Your task to perform on an android device: turn on sleep mode Image 0: 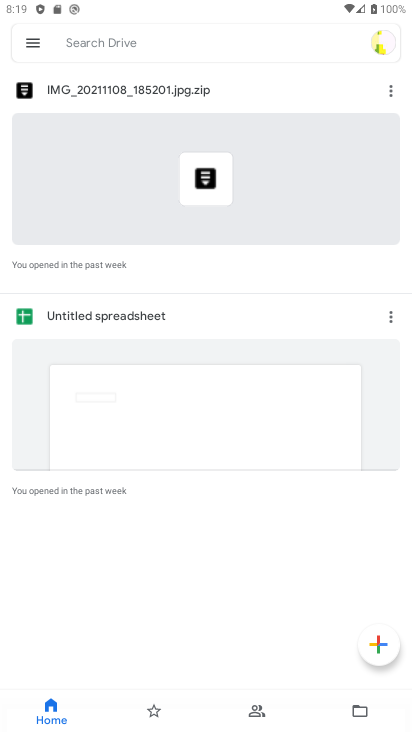
Step 0: drag from (113, 432) to (393, 7)
Your task to perform on an android device: turn on sleep mode Image 1: 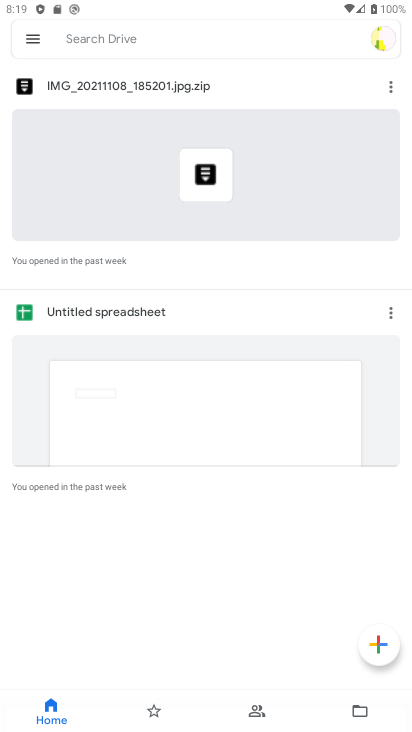
Step 1: press home button
Your task to perform on an android device: turn on sleep mode Image 2: 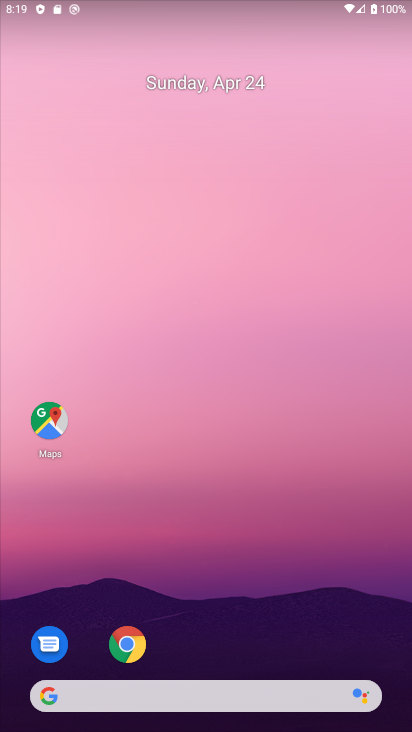
Step 2: drag from (220, 334) to (224, 179)
Your task to perform on an android device: turn on sleep mode Image 3: 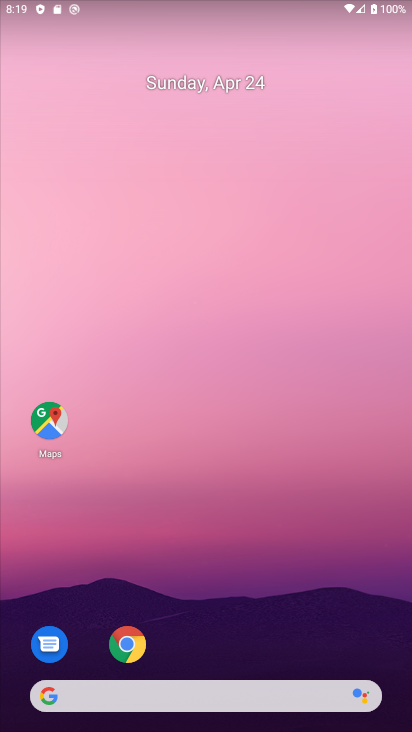
Step 3: drag from (252, 278) to (157, 15)
Your task to perform on an android device: turn on sleep mode Image 4: 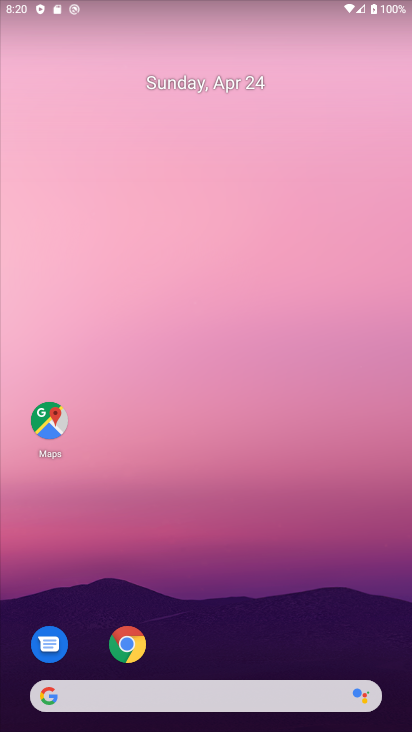
Step 4: drag from (193, 628) to (266, 10)
Your task to perform on an android device: turn on sleep mode Image 5: 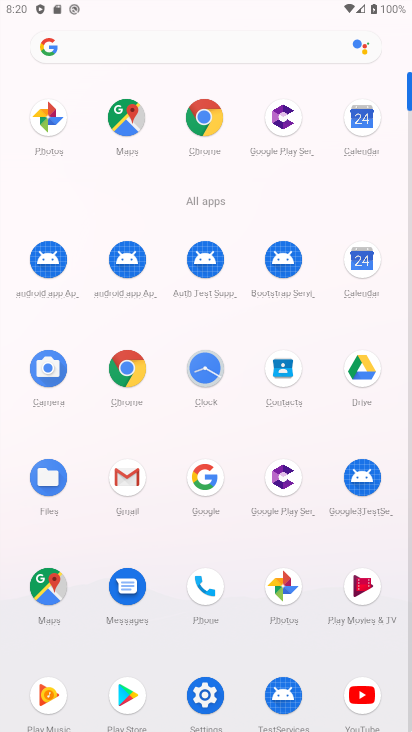
Step 5: click (215, 685)
Your task to perform on an android device: turn on sleep mode Image 6: 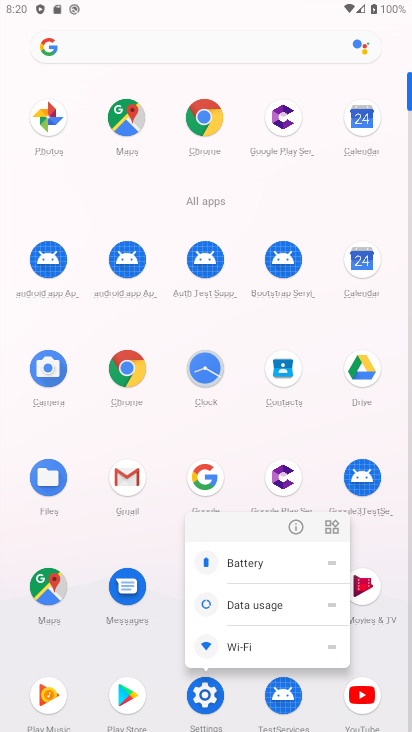
Step 6: click (296, 520)
Your task to perform on an android device: turn on sleep mode Image 7: 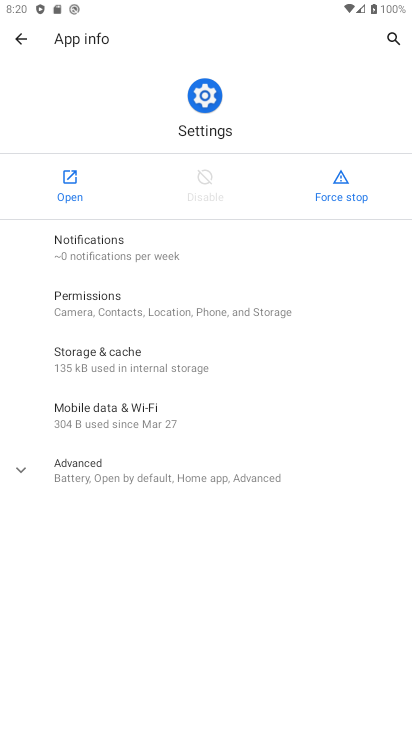
Step 7: click (68, 186)
Your task to perform on an android device: turn on sleep mode Image 8: 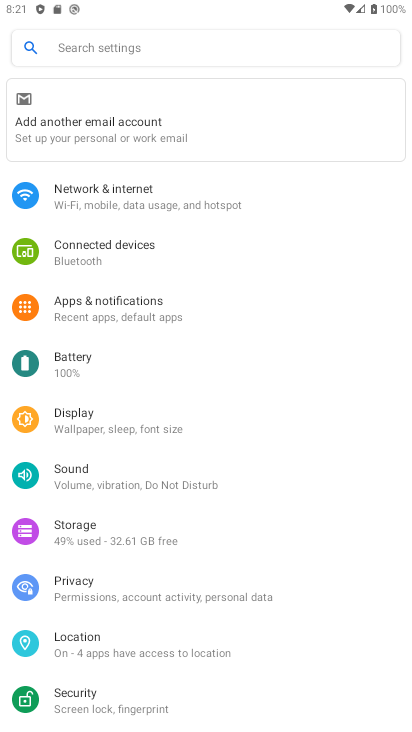
Step 8: click (124, 418)
Your task to perform on an android device: turn on sleep mode Image 9: 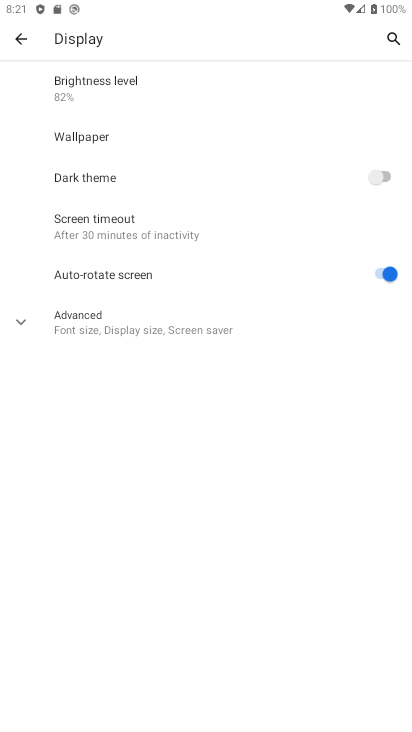
Step 9: click (199, 219)
Your task to perform on an android device: turn on sleep mode Image 10: 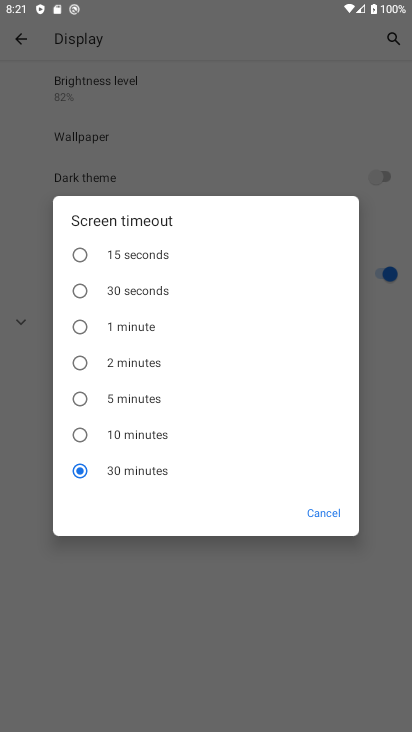
Step 10: task complete